Your task to perform on an android device: Search for Mexican restaurants on Maps Image 0: 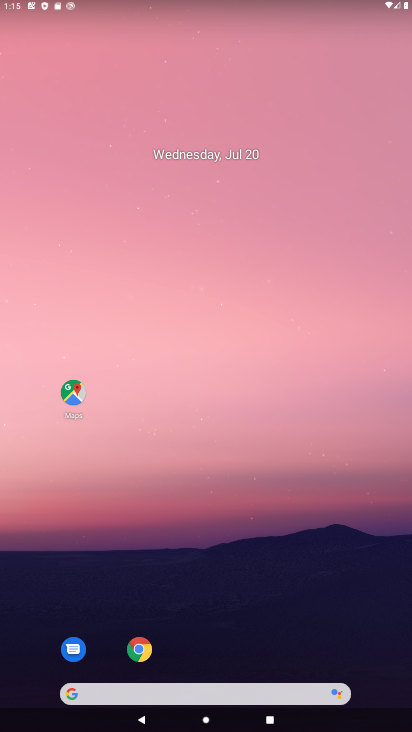
Step 0: drag from (252, 727) to (328, 710)
Your task to perform on an android device: Search for Mexican restaurants on Maps Image 1: 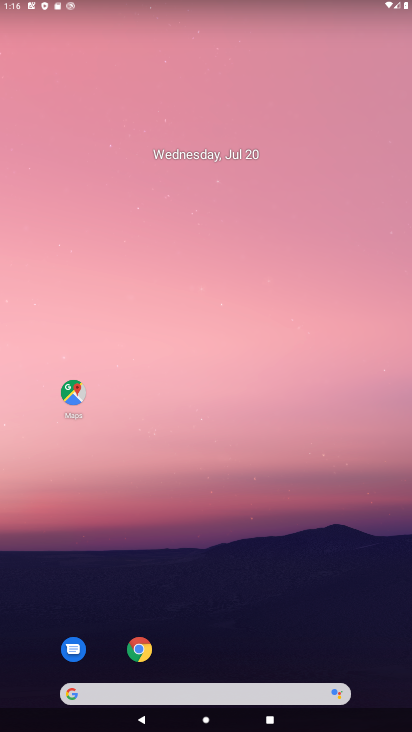
Step 1: click (83, 386)
Your task to perform on an android device: Search for Mexican restaurants on Maps Image 2: 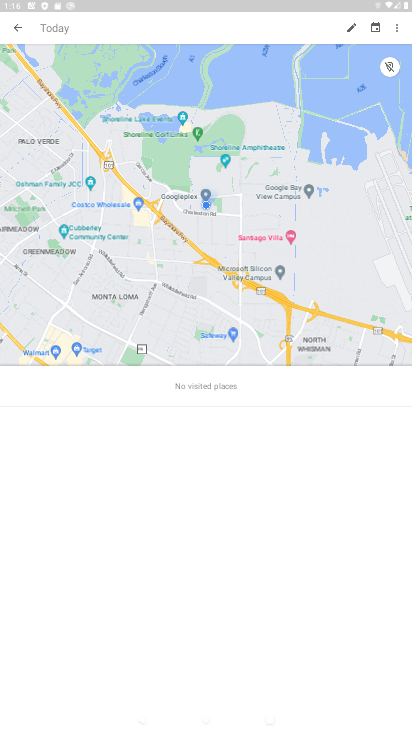
Step 2: click (19, 25)
Your task to perform on an android device: Search for Mexican restaurants on Maps Image 3: 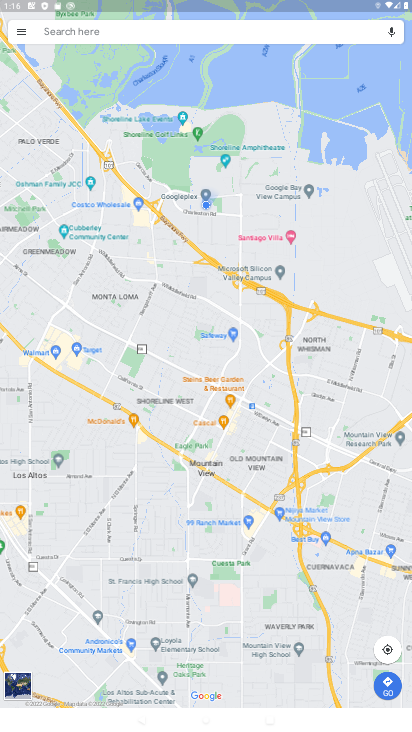
Step 3: click (90, 29)
Your task to perform on an android device: Search for Mexican restaurants on Maps Image 4: 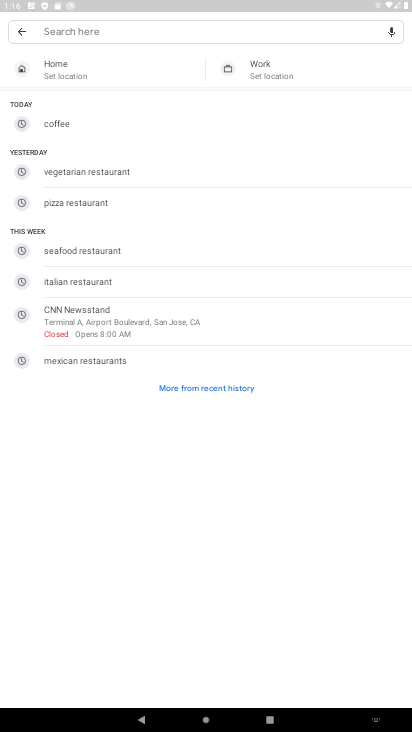
Step 4: type "Mexican restaurants "
Your task to perform on an android device: Search for Mexican restaurants on Maps Image 5: 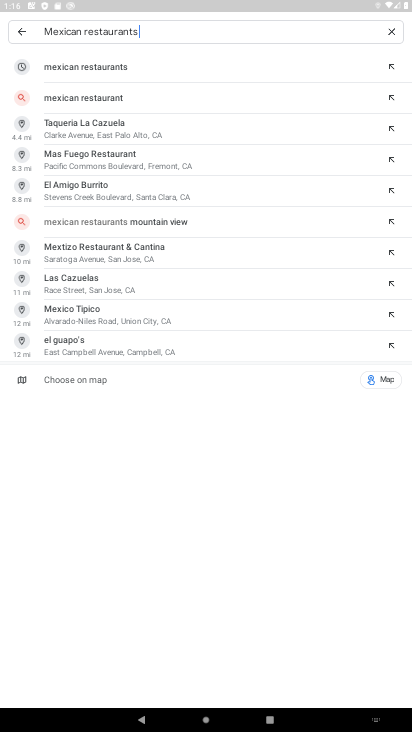
Step 5: click (153, 54)
Your task to perform on an android device: Search for Mexican restaurants on Maps Image 6: 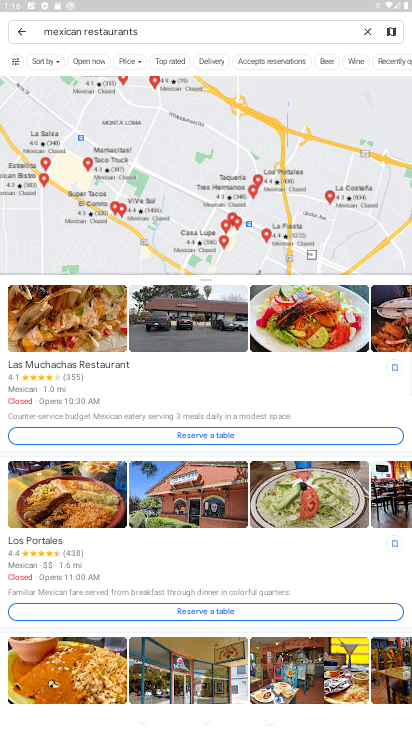
Step 6: task complete